Your task to perform on an android device: toggle show notifications on the lock screen Image 0: 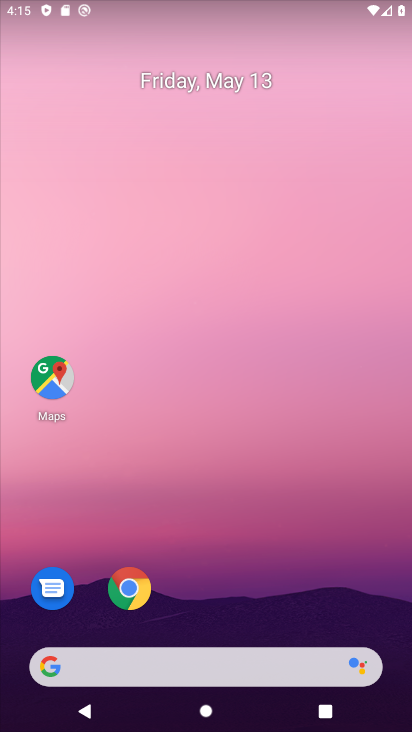
Step 0: drag from (215, 623) to (272, 60)
Your task to perform on an android device: toggle show notifications on the lock screen Image 1: 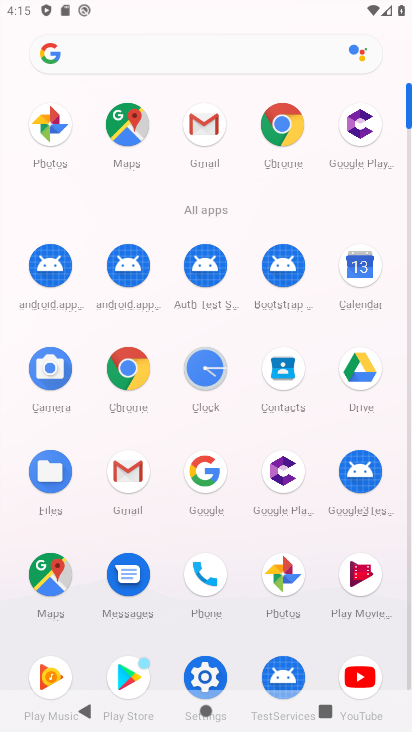
Step 1: click (201, 148)
Your task to perform on an android device: toggle show notifications on the lock screen Image 2: 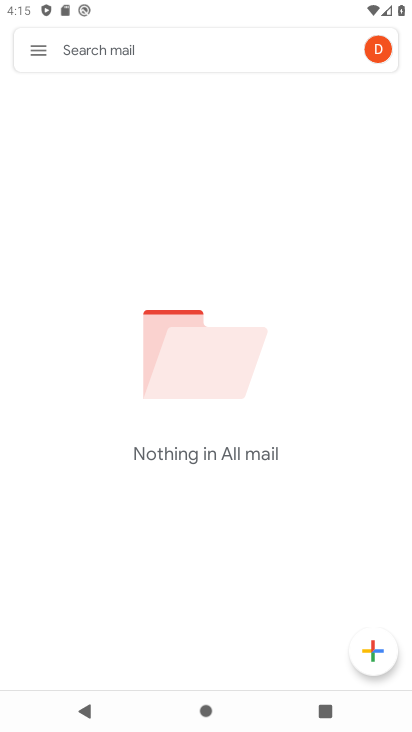
Step 2: click (31, 40)
Your task to perform on an android device: toggle show notifications on the lock screen Image 3: 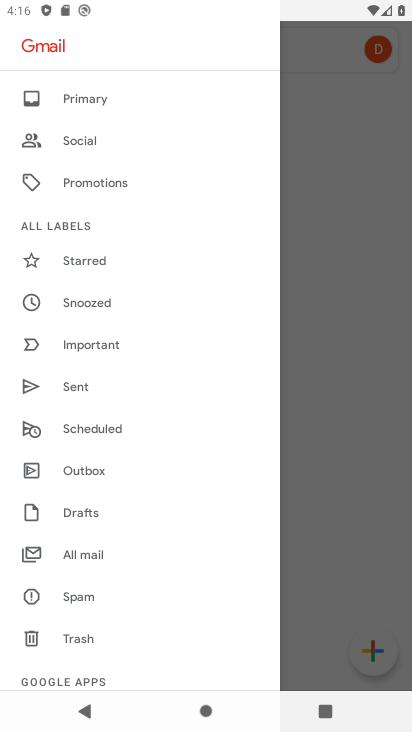
Step 3: press home button
Your task to perform on an android device: toggle show notifications on the lock screen Image 4: 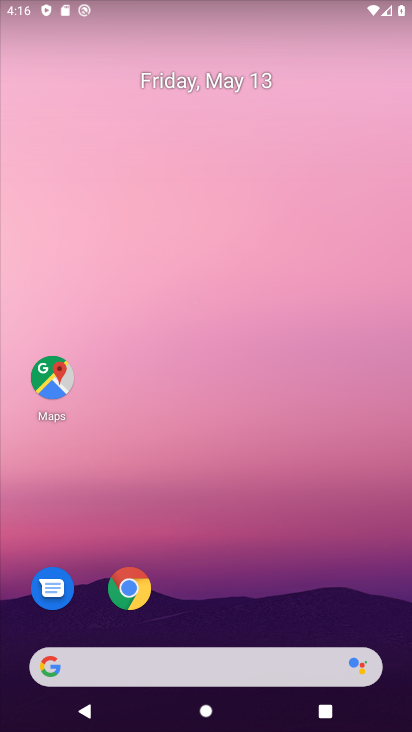
Step 4: drag from (174, 626) to (230, 148)
Your task to perform on an android device: toggle show notifications on the lock screen Image 5: 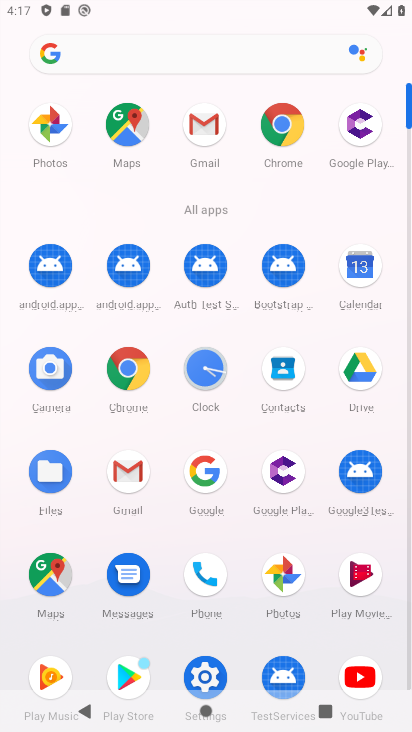
Step 5: click (210, 667)
Your task to perform on an android device: toggle show notifications on the lock screen Image 6: 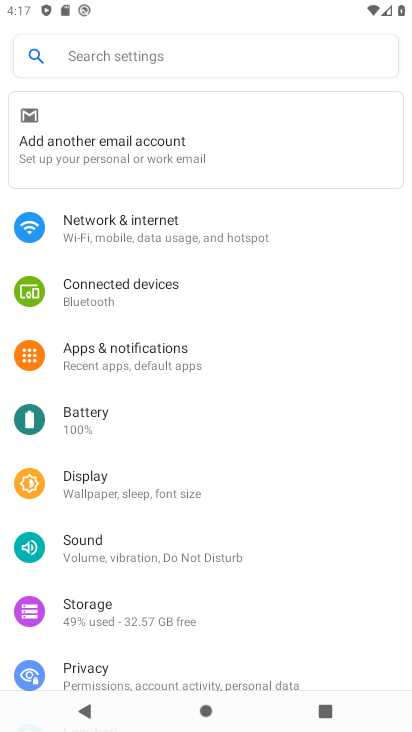
Step 6: click (183, 361)
Your task to perform on an android device: toggle show notifications on the lock screen Image 7: 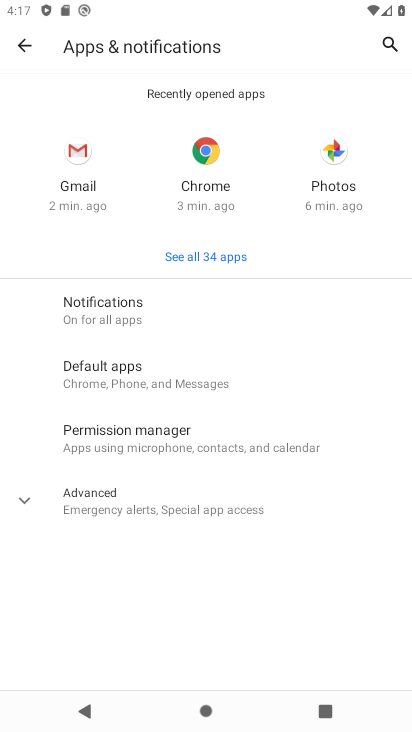
Step 7: click (164, 324)
Your task to perform on an android device: toggle show notifications on the lock screen Image 8: 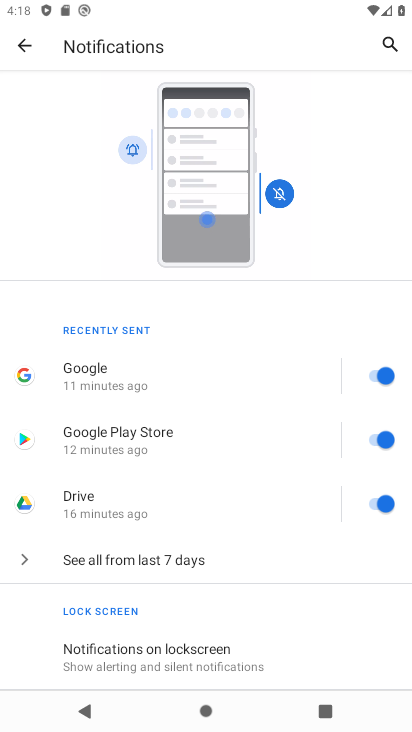
Step 8: click (136, 659)
Your task to perform on an android device: toggle show notifications on the lock screen Image 9: 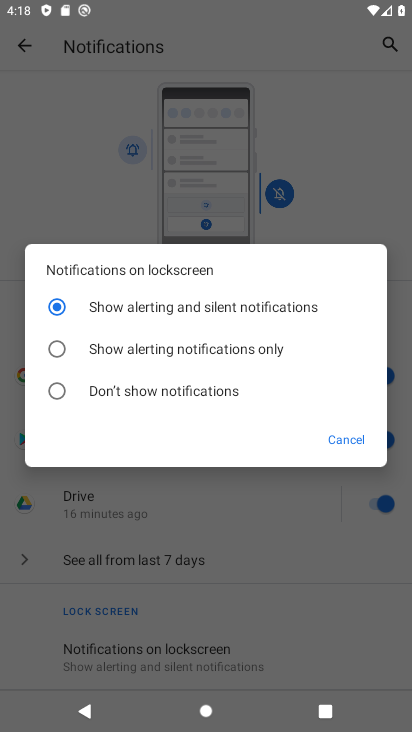
Step 9: task complete